Your task to perform on an android device: open a bookmark in the chrome app Image 0: 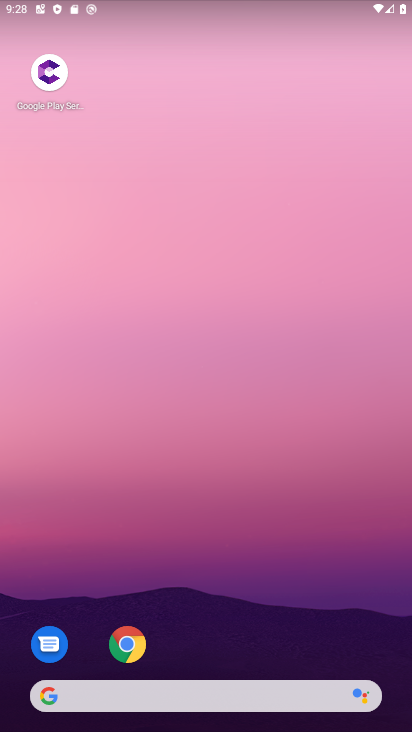
Step 0: click (132, 640)
Your task to perform on an android device: open a bookmark in the chrome app Image 1: 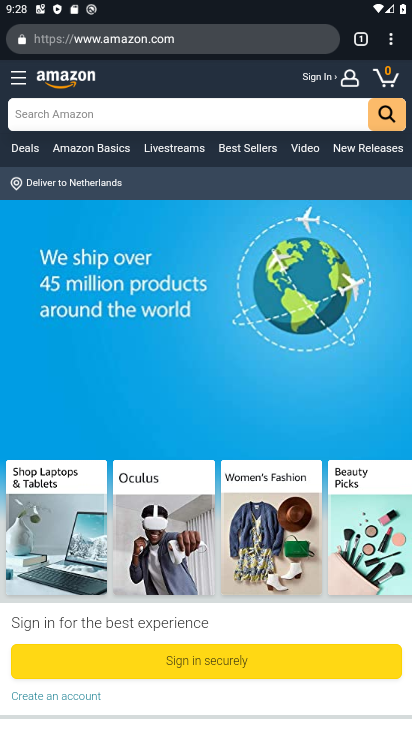
Step 1: click (392, 35)
Your task to perform on an android device: open a bookmark in the chrome app Image 2: 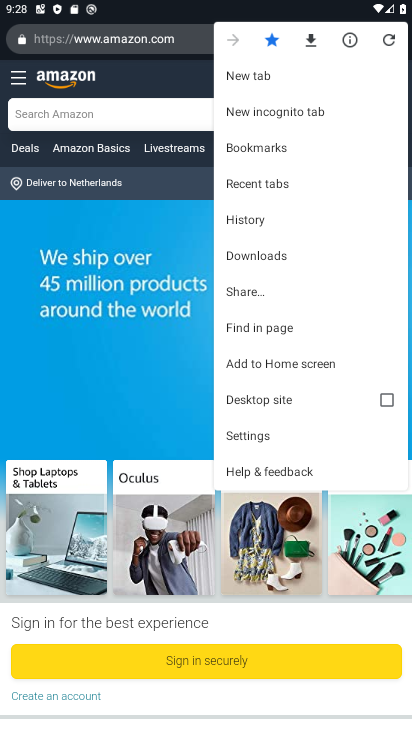
Step 2: click (263, 437)
Your task to perform on an android device: open a bookmark in the chrome app Image 3: 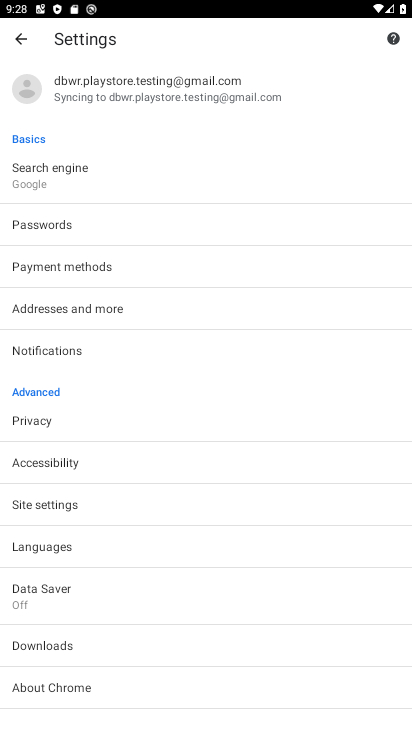
Step 3: click (18, 31)
Your task to perform on an android device: open a bookmark in the chrome app Image 4: 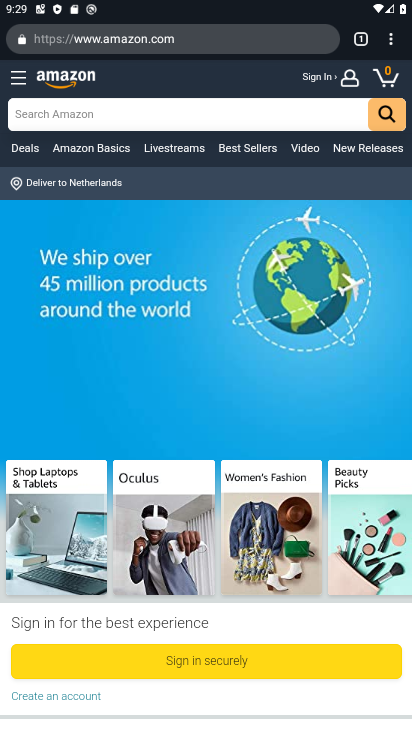
Step 4: click (396, 42)
Your task to perform on an android device: open a bookmark in the chrome app Image 5: 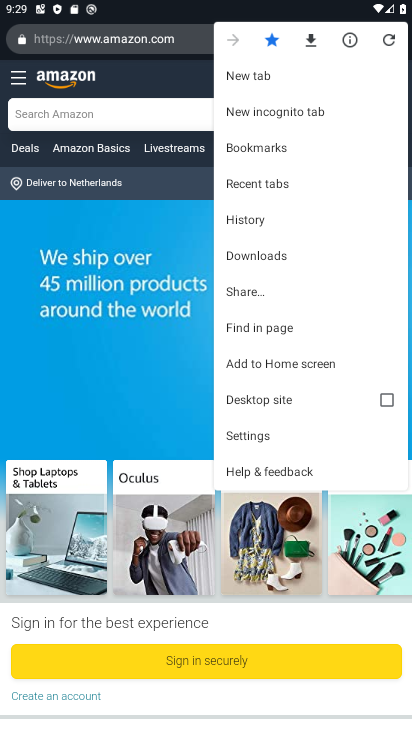
Step 5: click (261, 145)
Your task to perform on an android device: open a bookmark in the chrome app Image 6: 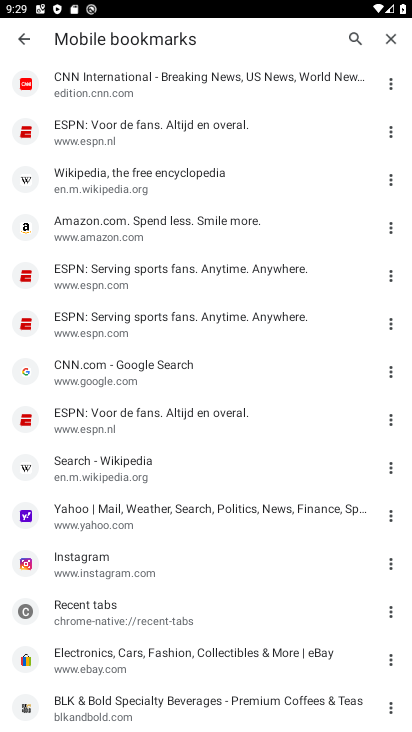
Step 6: task complete